Your task to perform on an android device: Open internet settings Image 0: 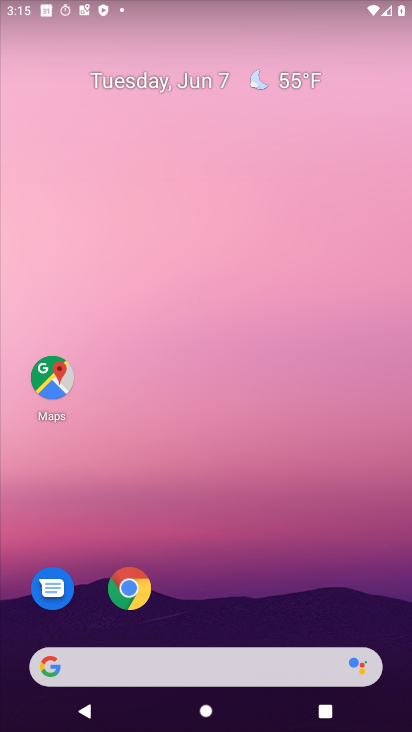
Step 0: press home button
Your task to perform on an android device: Open internet settings Image 1: 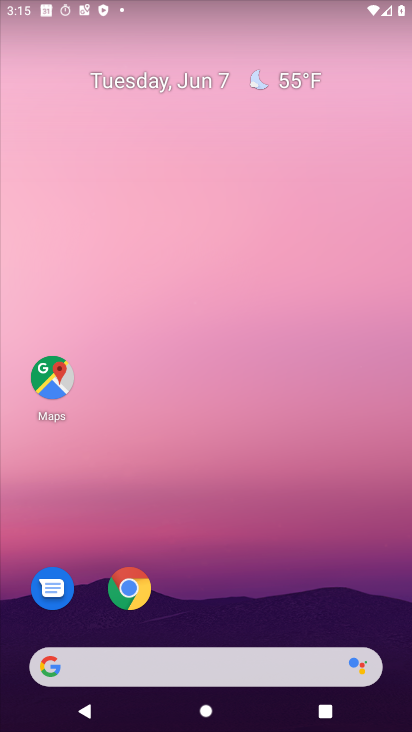
Step 1: drag from (234, 635) to (266, 249)
Your task to perform on an android device: Open internet settings Image 2: 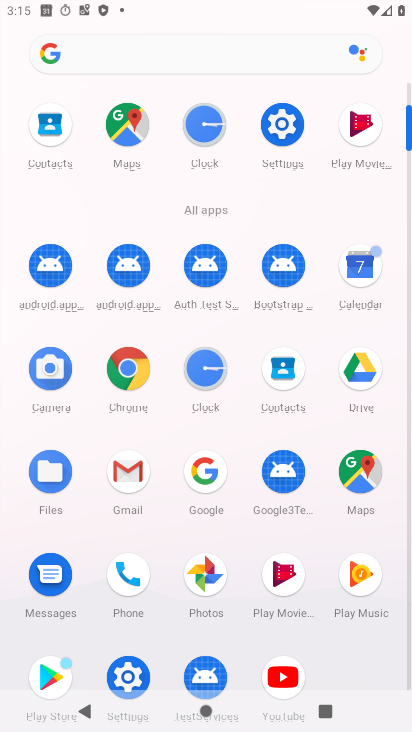
Step 2: click (293, 135)
Your task to perform on an android device: Open internet settings Image 3: 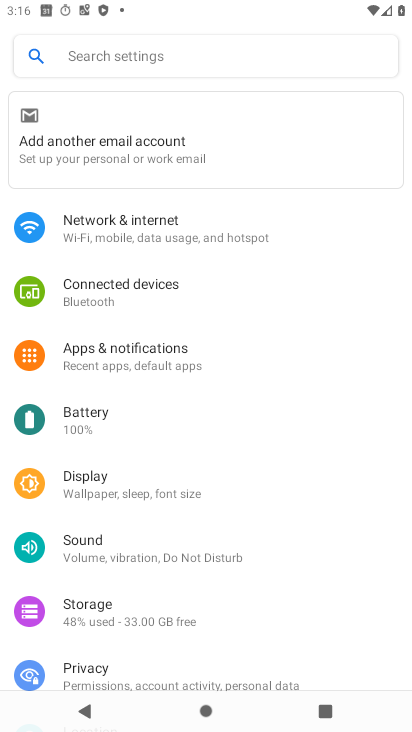
Step 3: click (131, 237)
Your task to perform on an android device: Open internet settings Image 4: 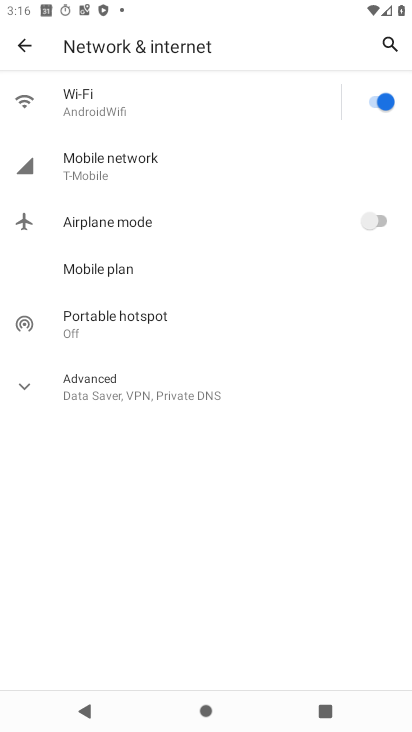
Step 4: task complete